Your task to perform on an android device: What's the weather going to be tomorrow? Image 0: 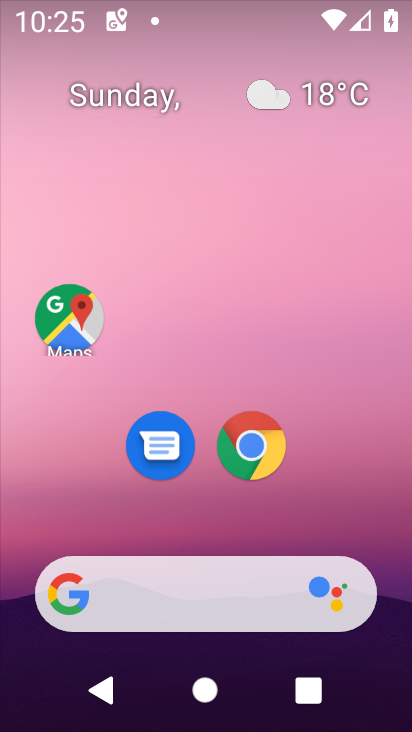
Step 0: press home button
Your task to perform on an android device: What's the weather going to be tomorrow? Image 1: 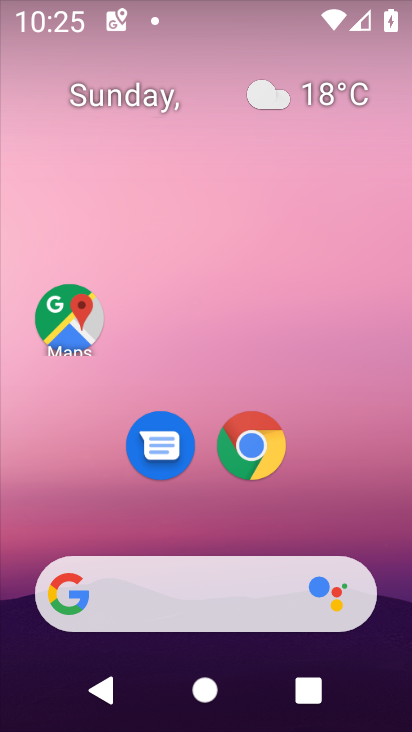
Step 1: click (336, 86)
Your task to perform on an android device: What's the weather going to be tomorrow? Image 2: 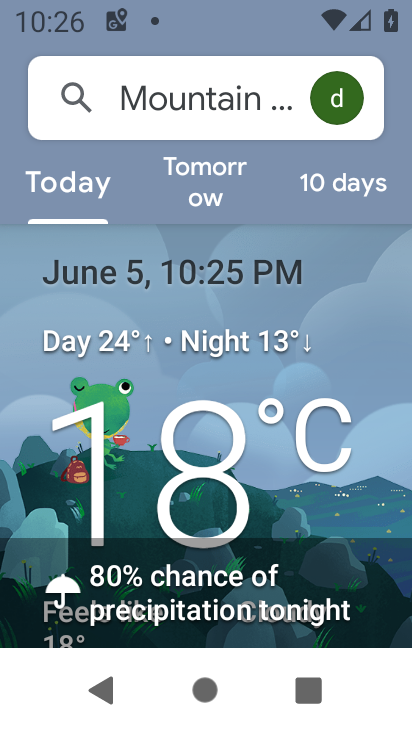
Step 2: click (203, 168)
Your task to perform on an android device: What's the weather going to be tomorrow? Image 3: 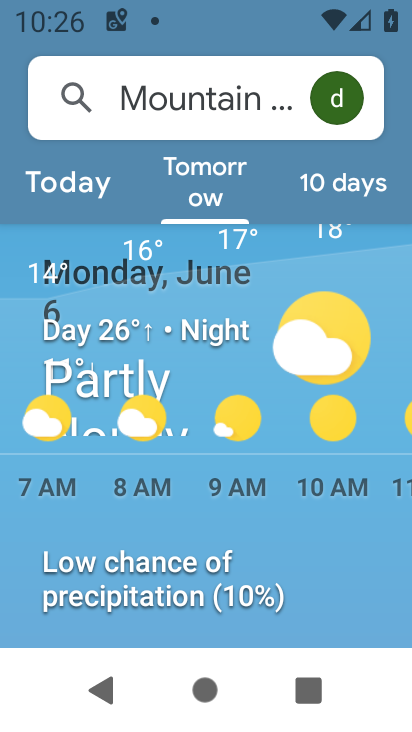
Step 3: task complete